Your task to perform on an android device: turn off improve location accuracy Image 0: 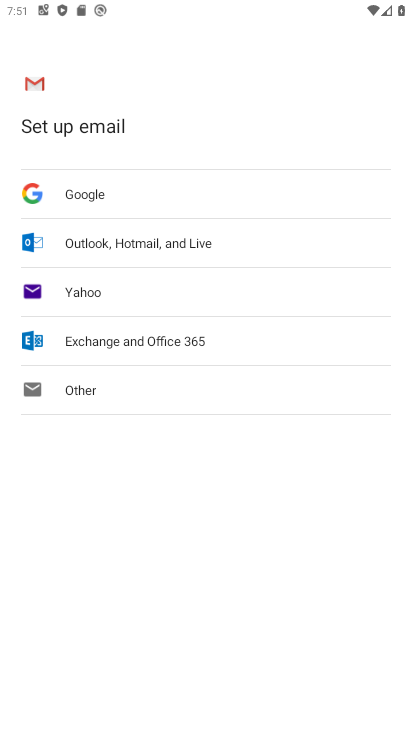
Step 0: press home button
Your task to perform on an android device: turn off improve location accuracy Image 1: 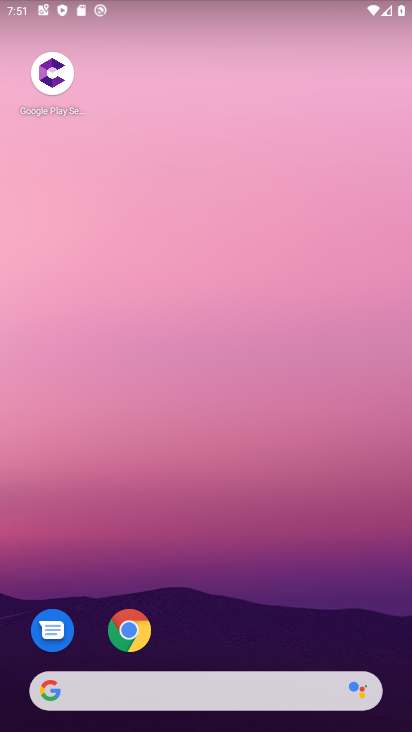
Step 1: drag from (313, 639) to (252, 128)
Your task to perform on an android device: turn off improve location accuracy Image 2: 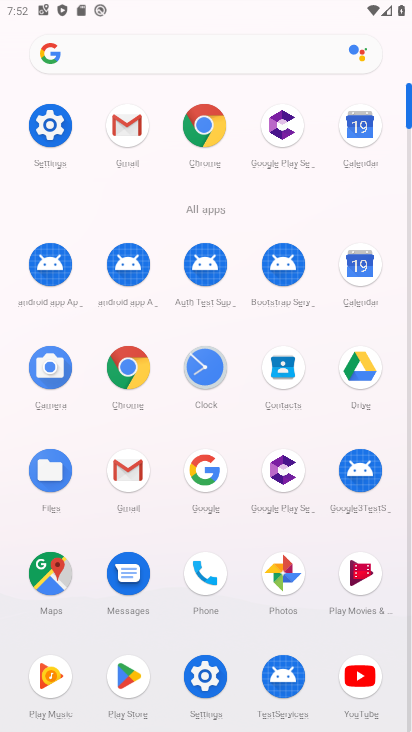
Step 2: click (34, 135)
Your task to perform on an android device: turn off improve location accuracy Image 3: 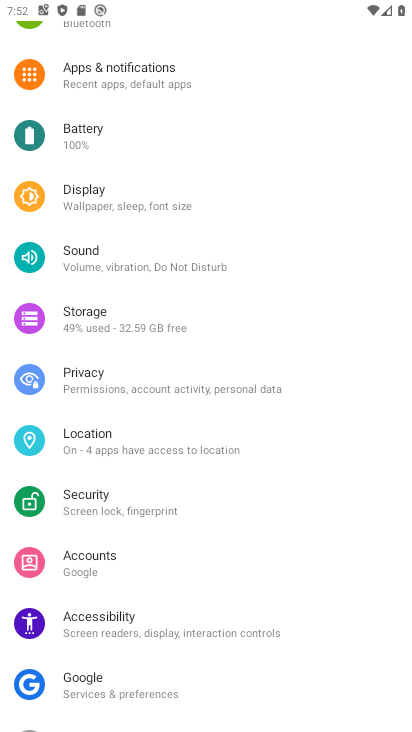
Step 3: click (110, 443)
Your task to perform on an android device: turn off improve location accuracy Image 4: 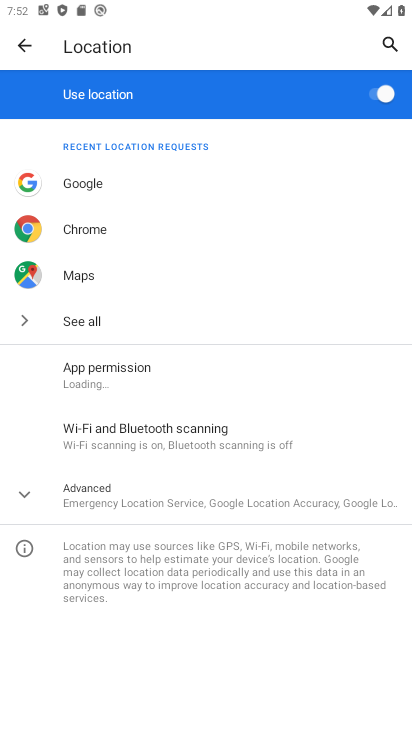
Step 4: click (102, 489)
Your task to perform on an android device: turn off improve location accuracy Image 5: 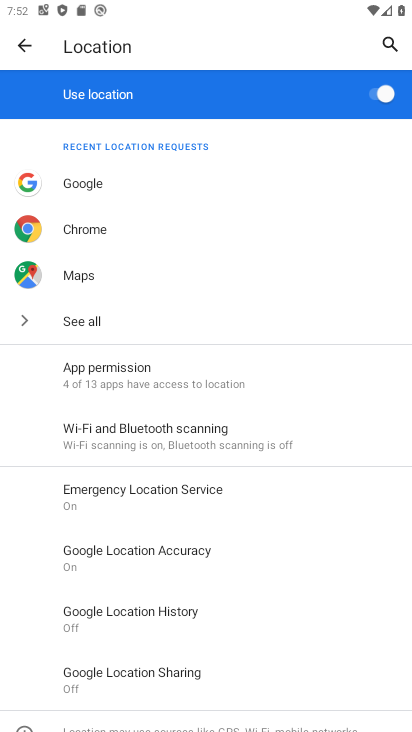
Step 5: click (181, 553)
Your task to perform on an android device: turn off improve location accuracy Image 6: 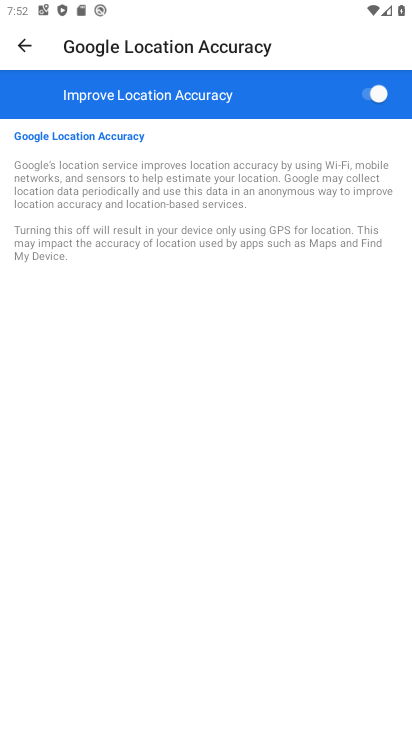
Step 6: click (387, 89)
Your task to perform on an android device: turn off improve location accuracy Image 7: 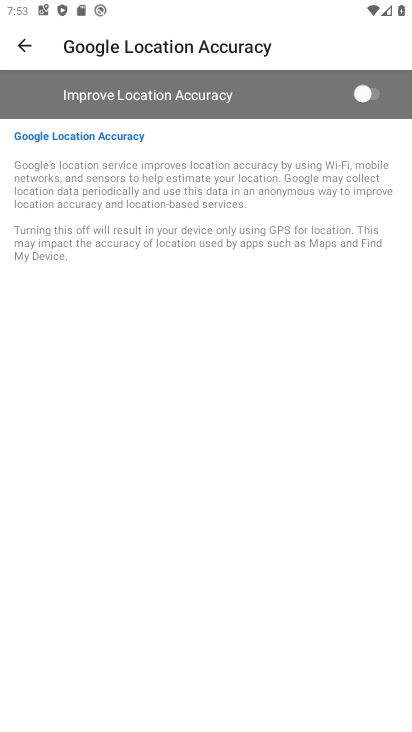
Step 7: task complete